Your task to perform on an android device: toggle translation in the chrome app Image 0: 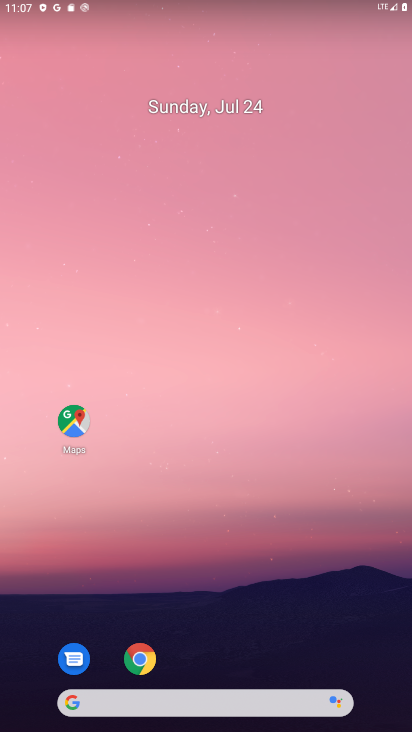
Step 0: drag from (266, 660) to (264, 60)
Your task to perform on an android device: toggle translation in the chrome app Image 1: 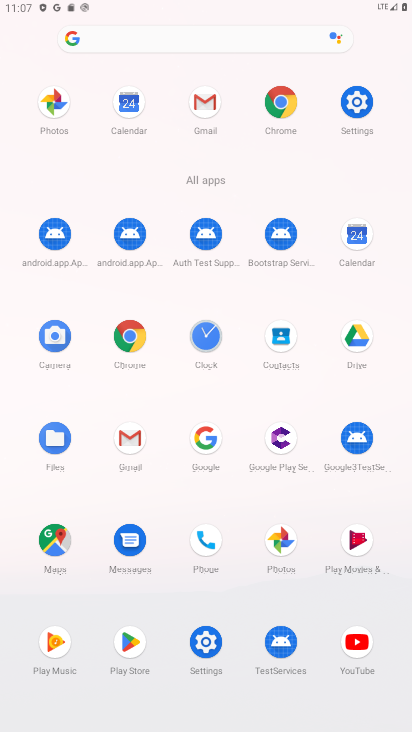
Step 1: click (280, 106)
Your task to perform on an android device: toggle translation in the chrome app Image 2: 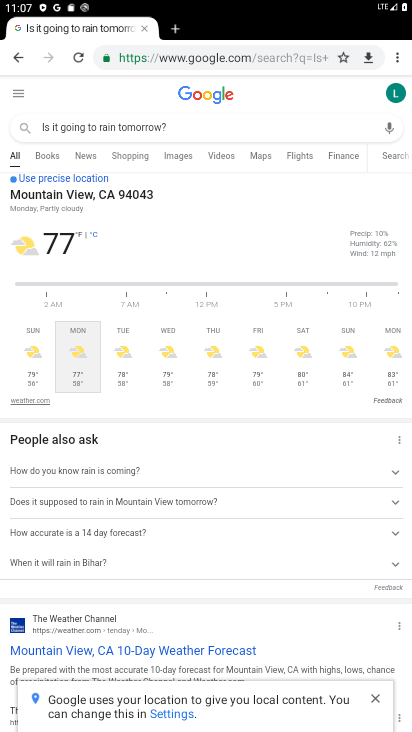
Step 2: click (404, 52)
Your task to perform on an android device: toggle translation in the chrome app Image 3: 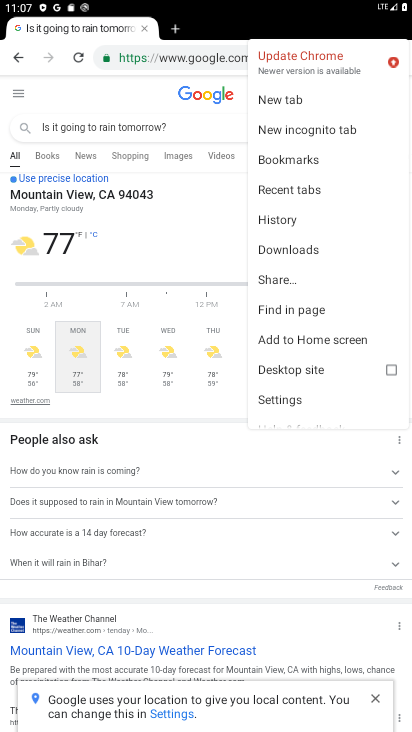
Step 3: click (308, 413)
Your task to perform on an android device: toggle translation in the chrome app Image 4: 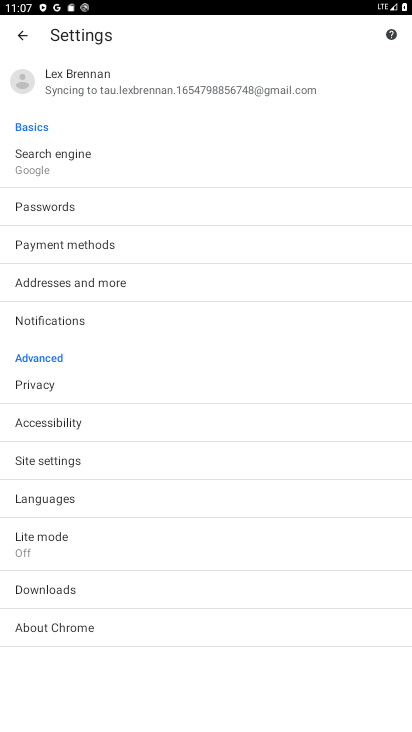
Step 4: click (83, 500)
Your task to perform on an android device: toggle translation in the chrome app Image 5: 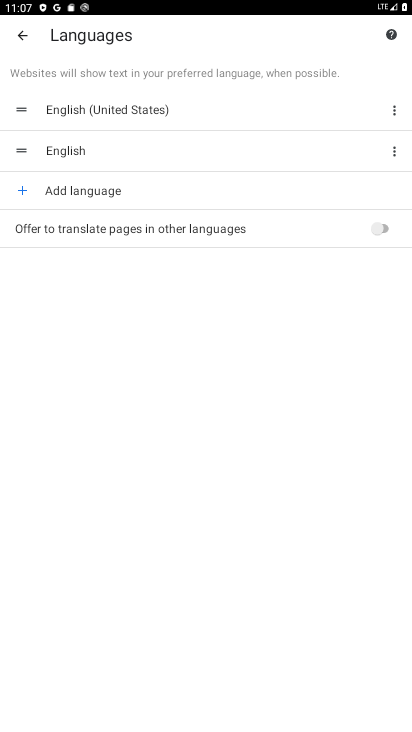
Step 5: click (387, 239)
Your task to perform on an android device: toggle translation in the chrome app Image 6: 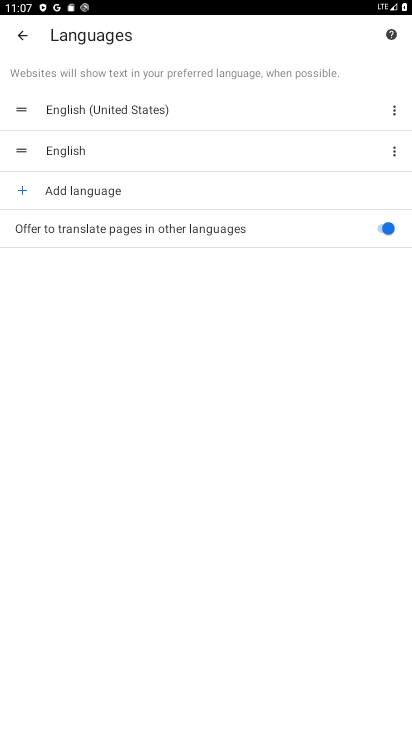
Step 6: task complete